Your task to perform on an android device: Show me recent news Image 0: 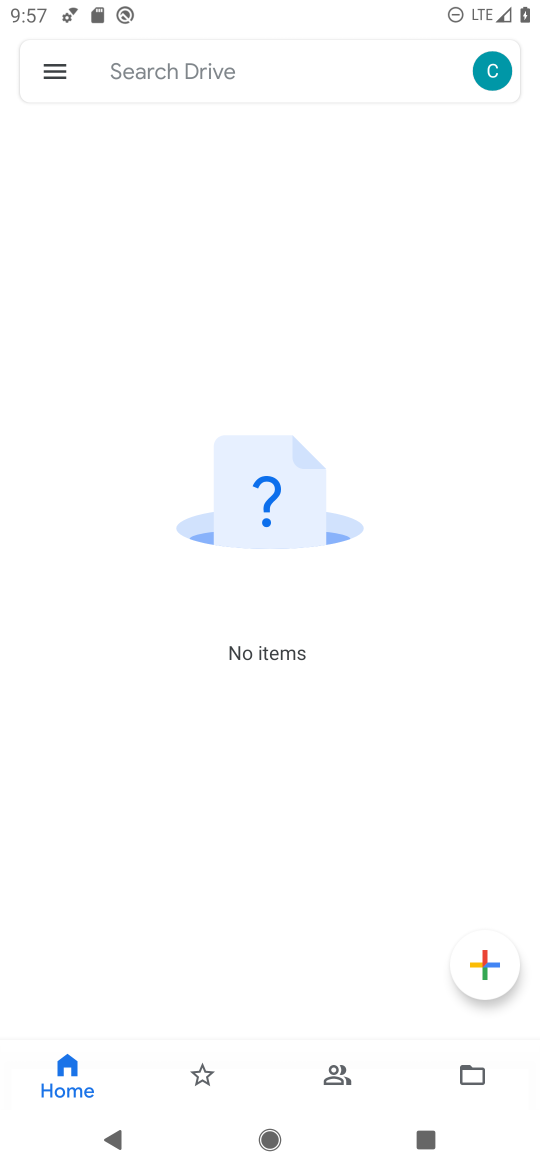
Step 0: press home button
Your task to perform on an android device: Show me recent news Image 1: 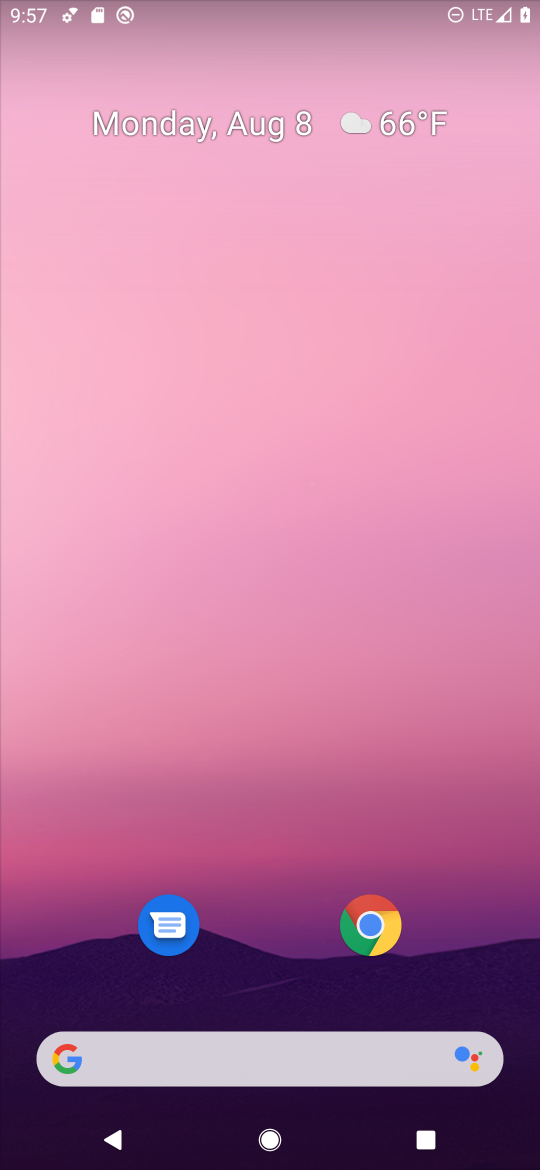
Step 1: drag from (415, 676) to (385, 153)
Your task to perform on an android device: Show me recent news Image 2: 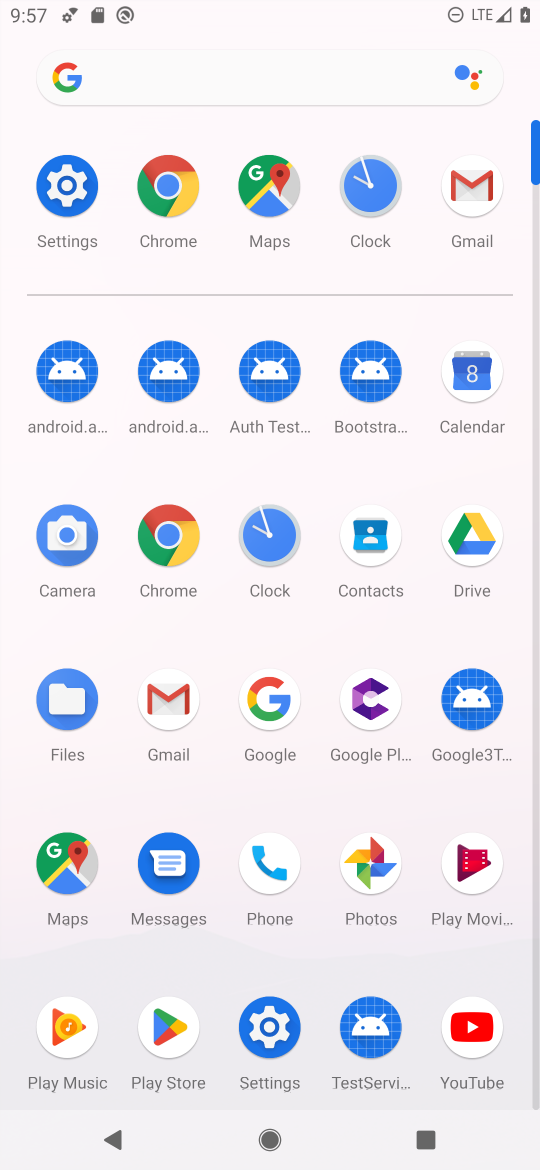
Step 2: click (166, 532)
Your task to perform on an android device: Show me recent news Image 3: 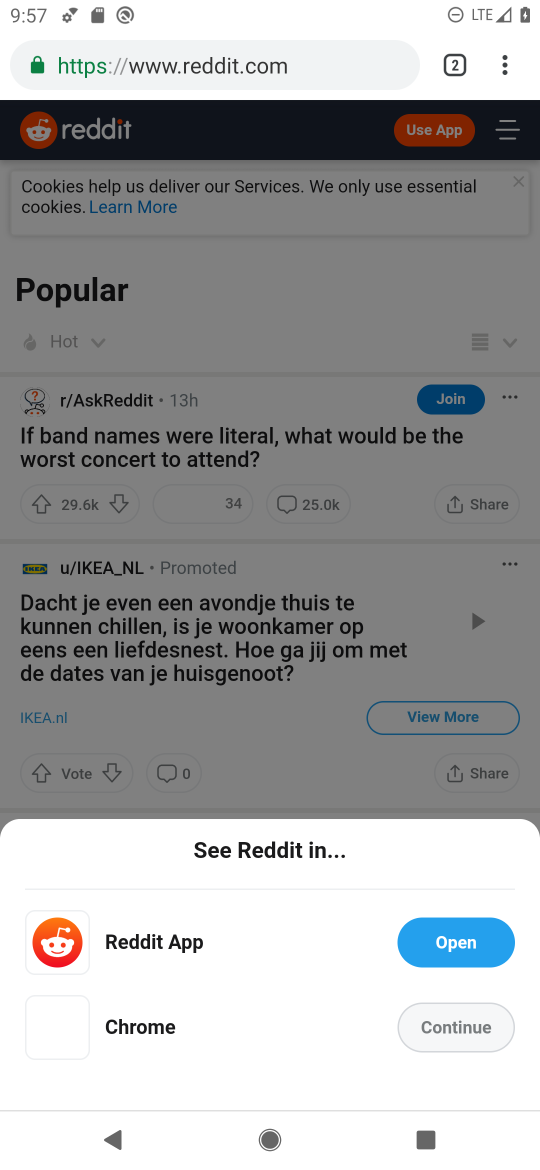
Step 3: click (262, 59)
Your task to perform on an android device: Show me recent news Image 4: 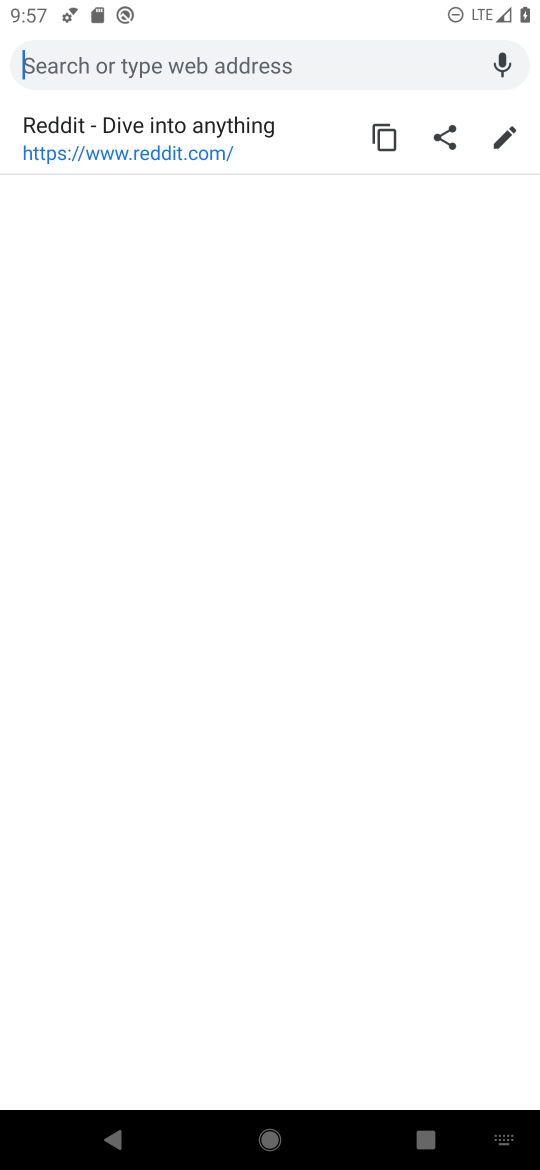
Step 4: type "news"
Your task to perform on an android device: Show me recent news Image 5: 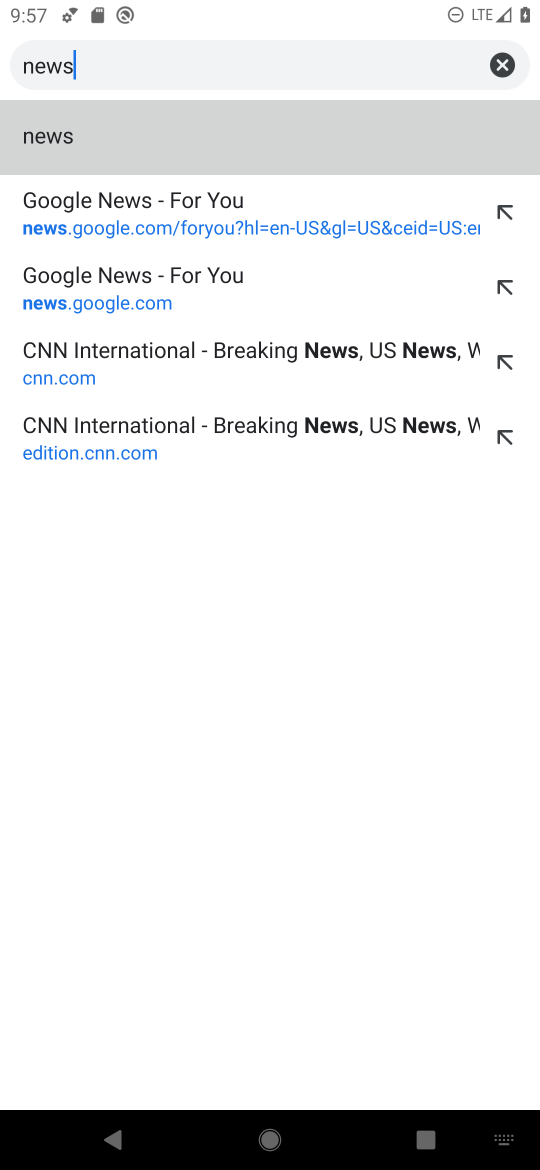
Step 5: click (50, 139)
Your task to perform on an android device: Show me recent news Image 6: 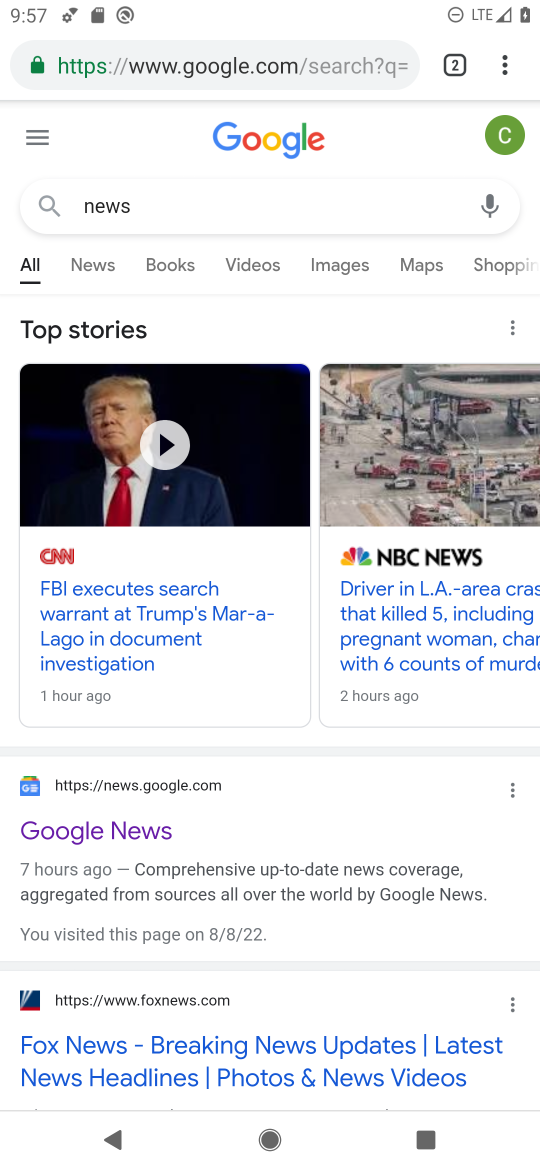
Step 6: click (110, 826)
Your task to perform on an android device: Show me recent news Image 7: 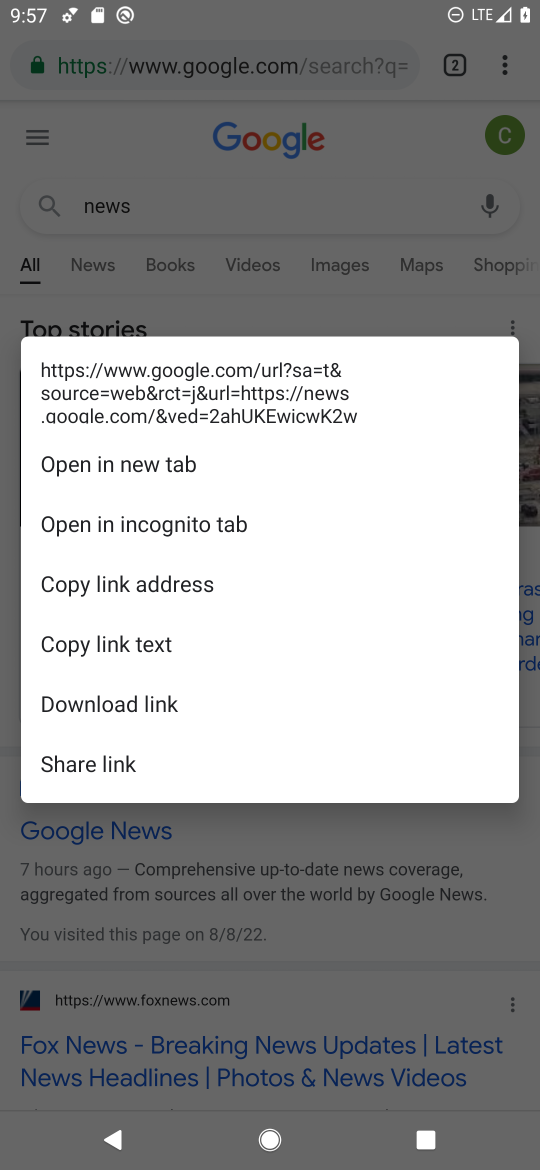
Step 7: click (157, 825)
Your task to perform on an android device: Show me recent news Image 8: 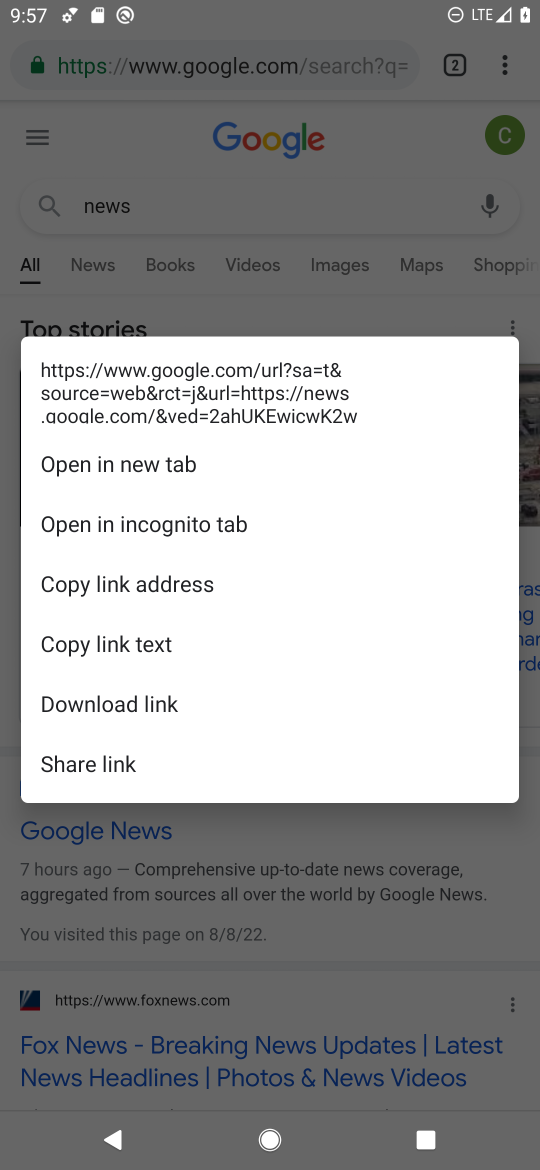
Step 8: click (144, 832)
Your task to perform on an android device: Show me recent news Image 9: 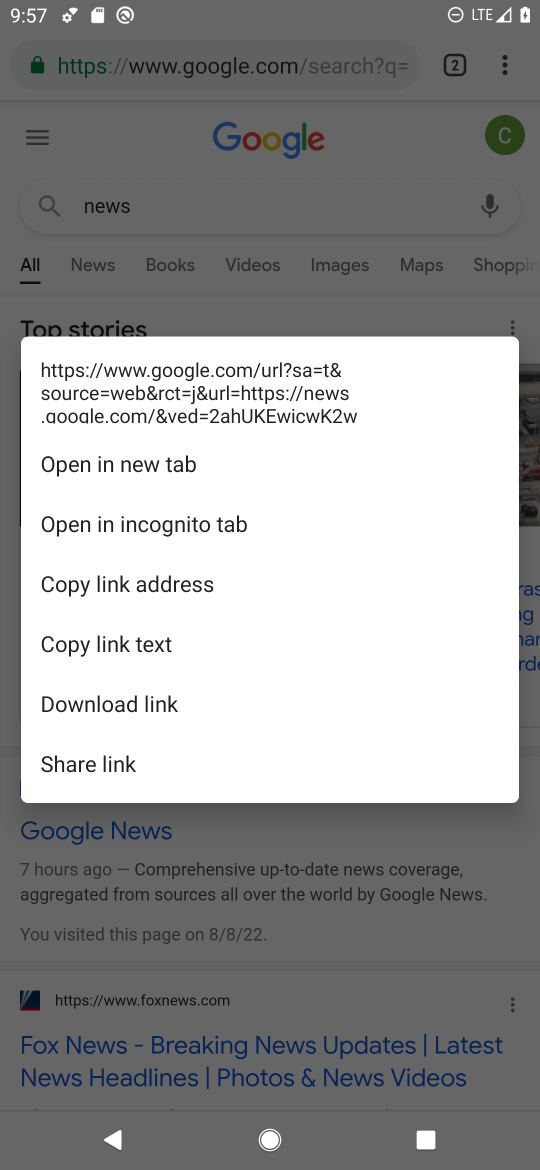
Step 9: click (144, 832)
Your task to perform on an android device: Show me recent news Image 10: 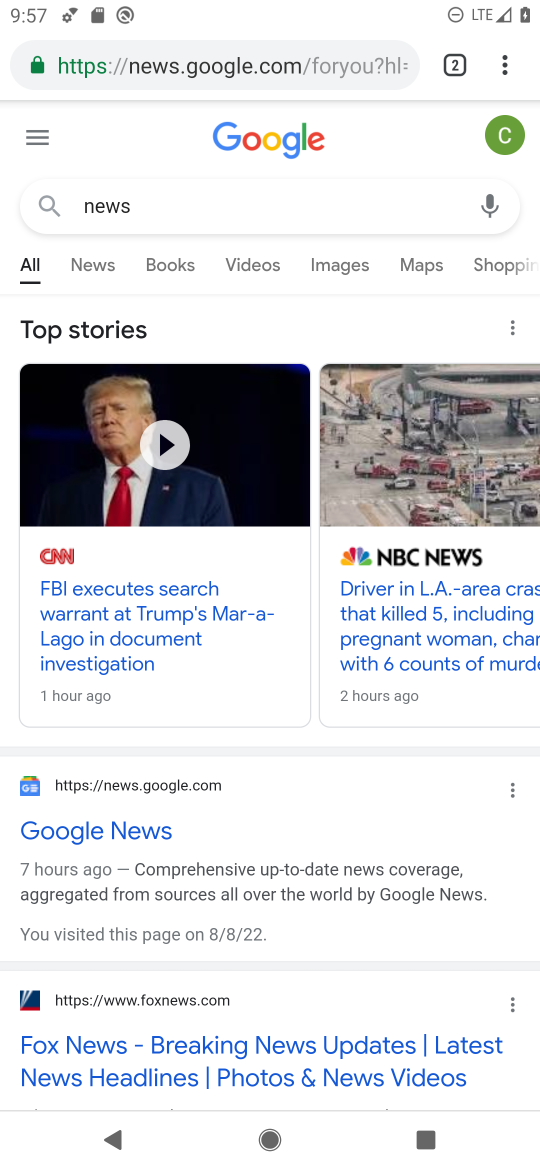
Step 10: click (134, 836)
Your task to perform on an android device: Show me recent news Image 11: 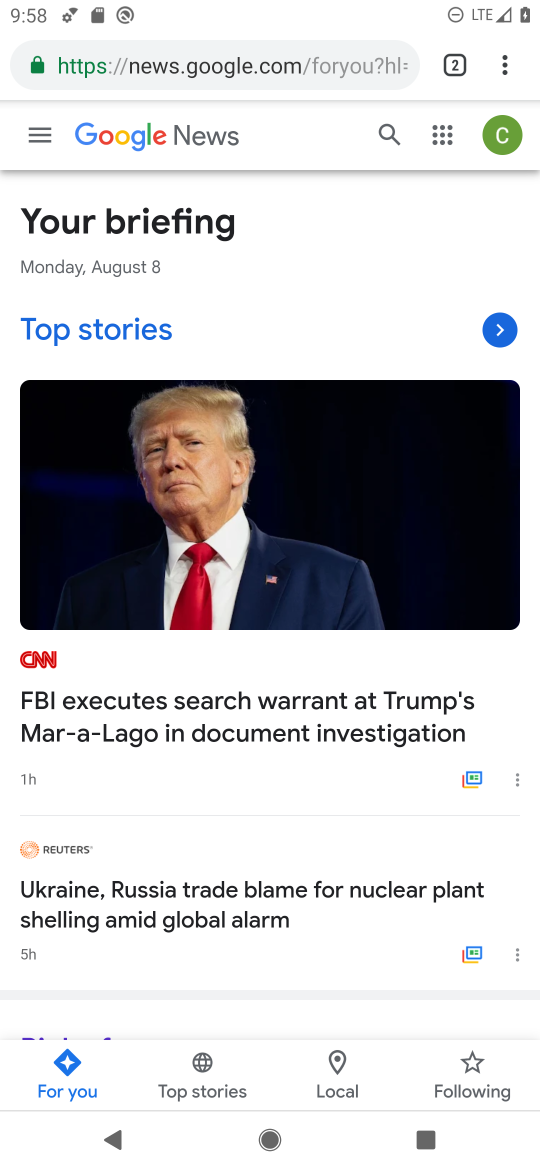
Step 11: task complete